Your task to perform on an android device: open chrome privacy settings Image 0: 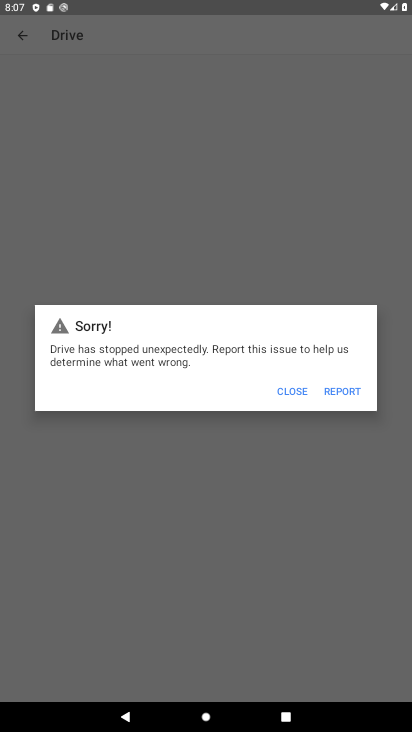
Step 0: press home button
Your task to perform on an android device: open chrome privacy settings Image 1: 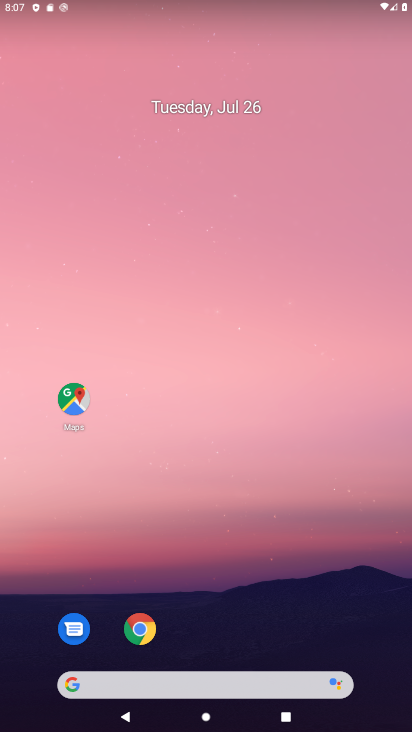
Step 1: click (150, 635)
Your task to perform on an android device: open chrome privacy settings Image 2: 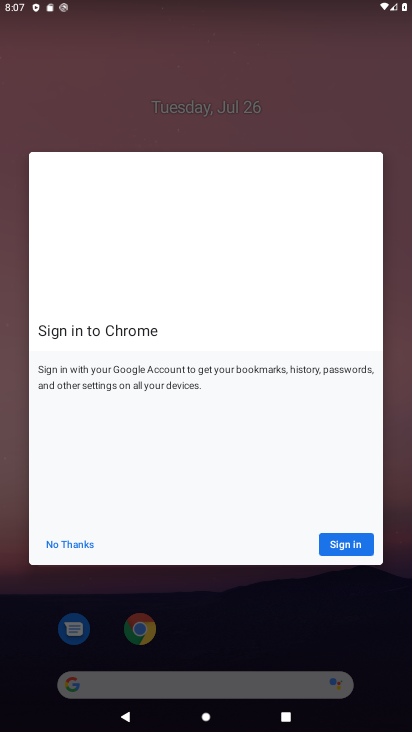
Step 2: click (78, 544)
Your task to perform on an android device: open chrome privacy settings Image 3: 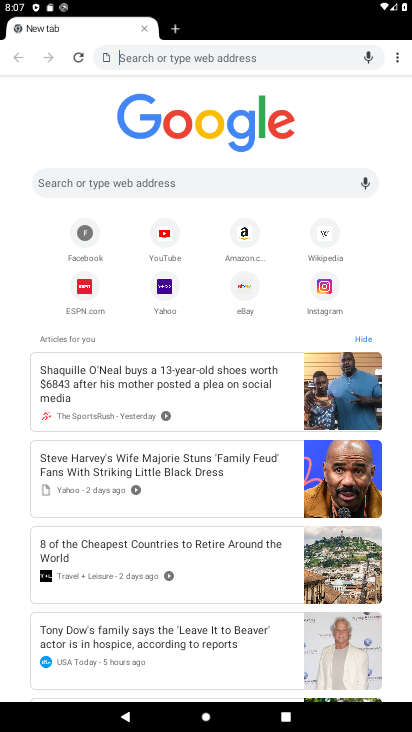
Step 3: click (399, 58)
Your task to perform on an android device: open chrome privacy settings Image 4: 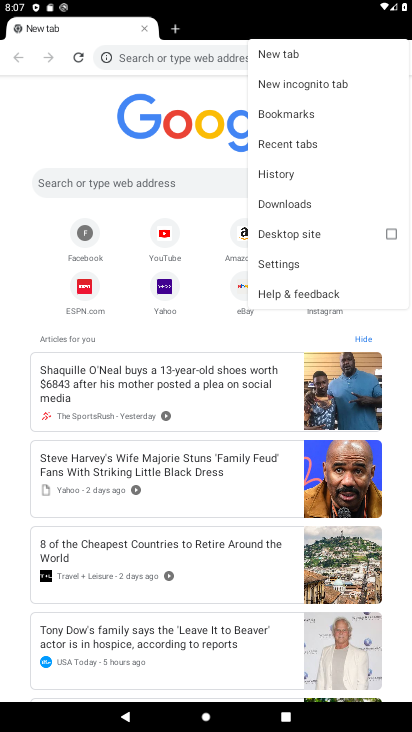
Step 4: click (271, 263)
Your task to perform on an android device: open chrome privacy settings Image 5: 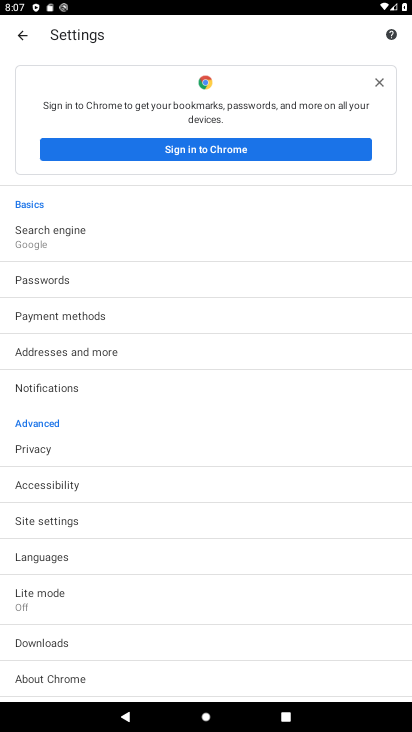
Step 5: click (36, 449)
Your task to perform on an android device: open chrome privacy settings Image 6: 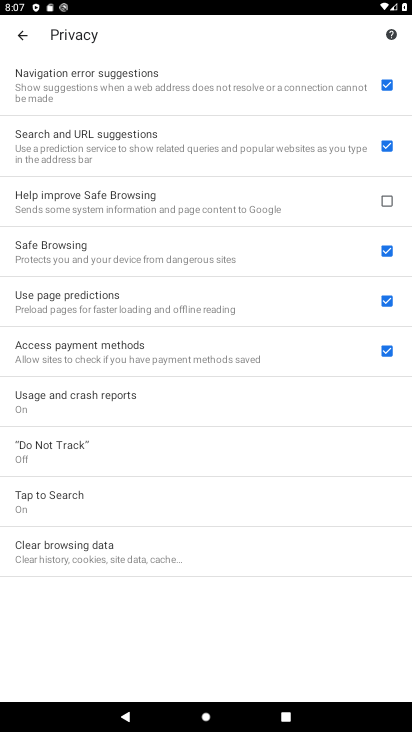
Step 6: task complete